Your task to perform on an android device: search for starred emails in the gmail app Image 0: 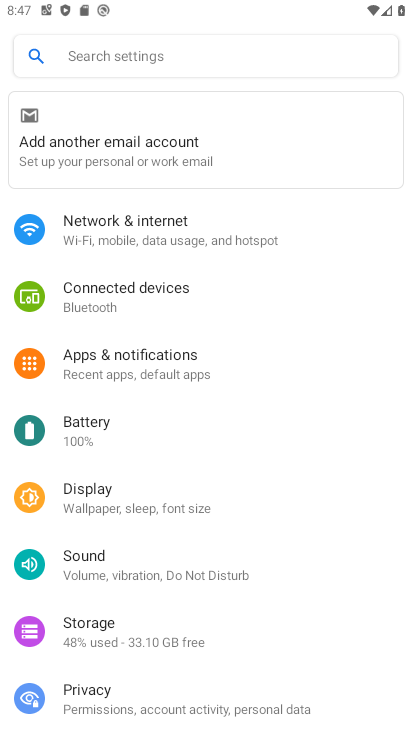
Step 0: press home button
Your task to perform on an android device: search for starred emails in the gmail app Image 1: 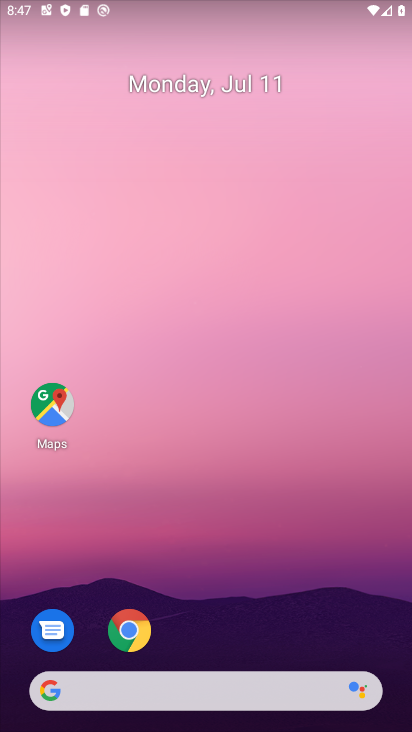
Step 1: drag from (252, 656) to (276, 143)
Your task to perform on an android device: search for starred emails in the gmail app Image 2: 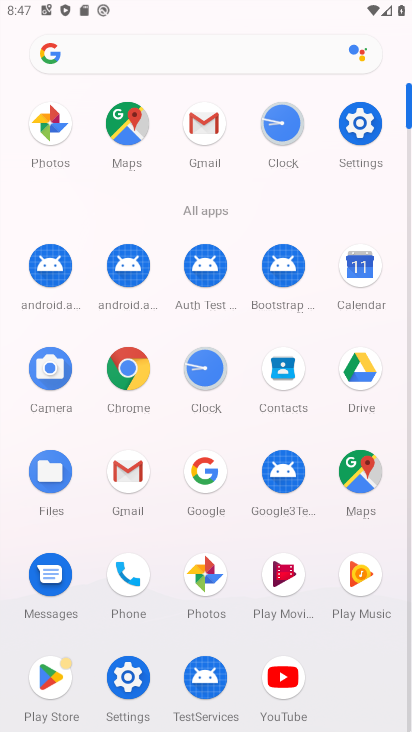
Step 2: click (202, 129)
Your task to perform on an android device: search for starred emails in the gmail app Image 3: 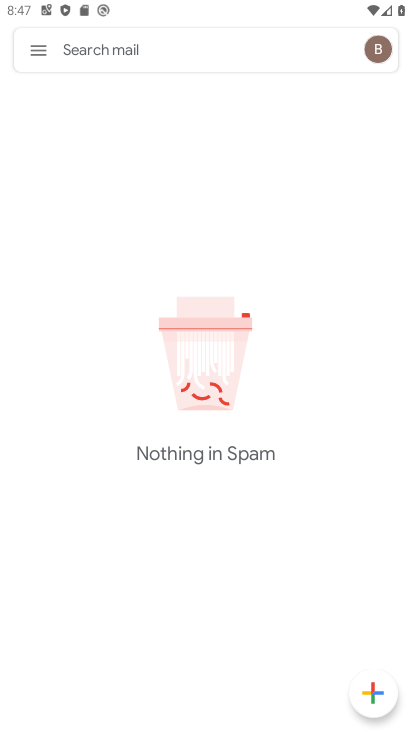
Step 3: click (38, 57)
Your task to perform on an android device: search for starred emails in the gmail app Image 4: 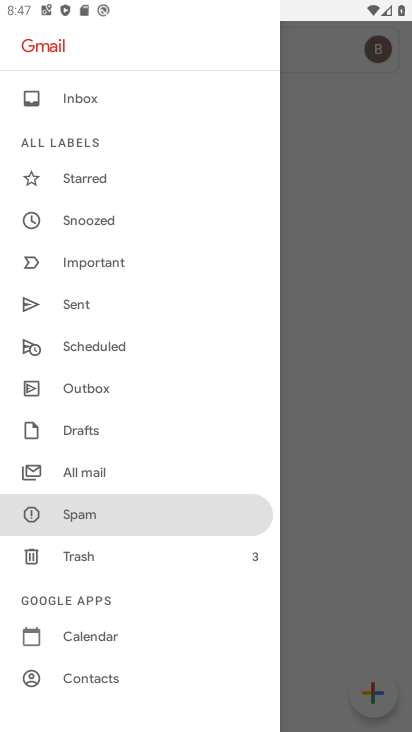
Step 4: click (100, 174)
Your task to perform on an android device: search for starred emails in the gmail app Image 5: 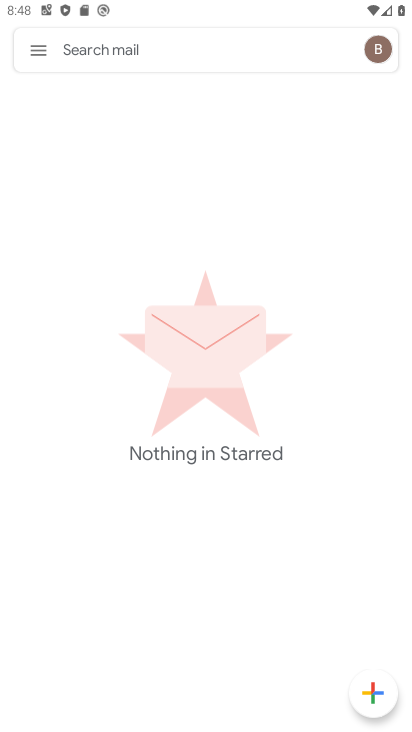
Step 5: task complete